Your task to perform on an android device: check battery use Image 0: 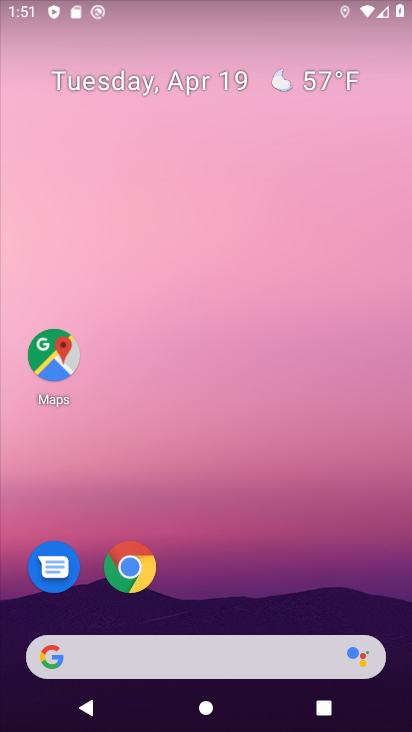
Step 0: drag from (242, 377) to (258, 165)
Your task to perform on an android device: check battery use Image 1: 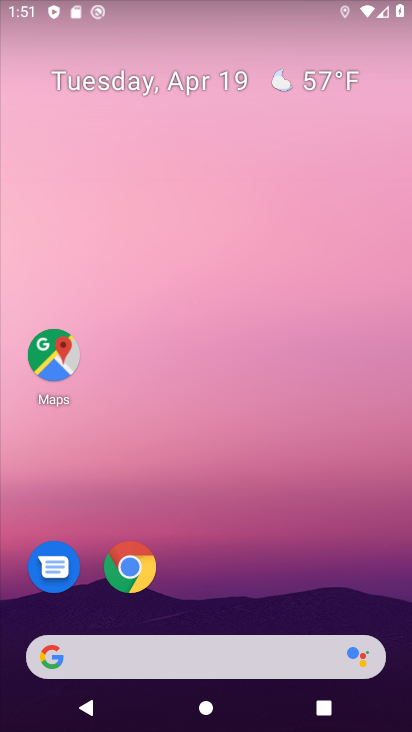
Step 1: drag from (226, 563) to (250, 130)
Your task to perform on an android device: check battery use Image 2: 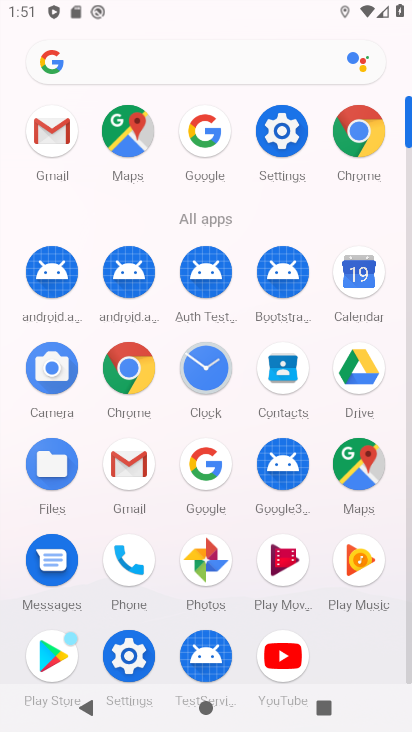
Step 2: click (283, 131)
Your task to perform on an android device: check battery use Image 3: 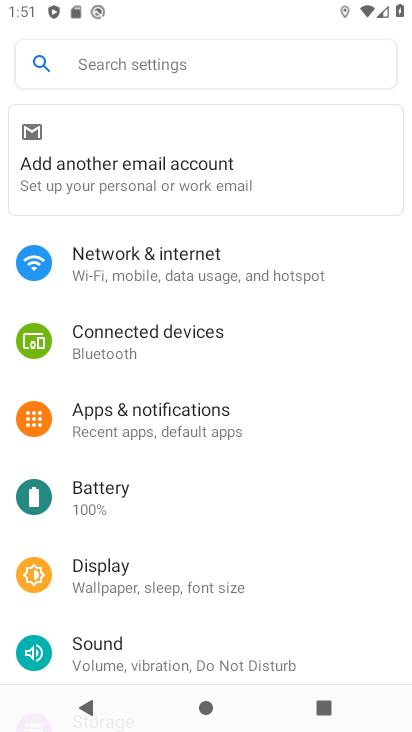
Step 3: click (128, 496)
Your task to perform on an android device: check battery use Image 4: 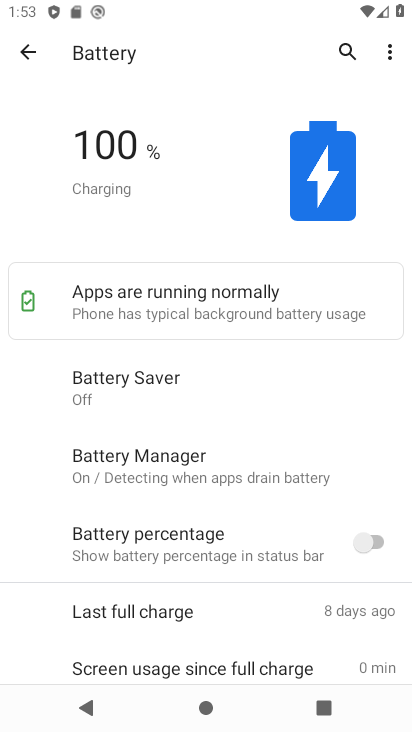
Step 4: task complete